Your task to perform on an android device: Clear all items from cart on newegg. Add usb-c to the cart on newegg, then select checkout. Image 0: 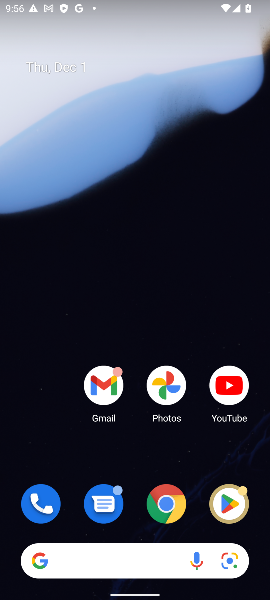
Step 0: task complete